Your task to perform on an android device: Add macbook pro to the cart on target.com, then select checkout. Image 0: 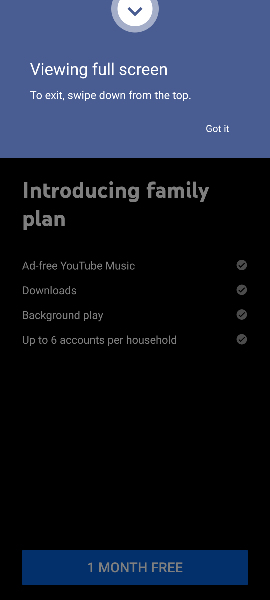
Step 0: press home button
Your task to perform on an android device: Add macbook pro to the cart on target.com, then select checkout. Image 1: 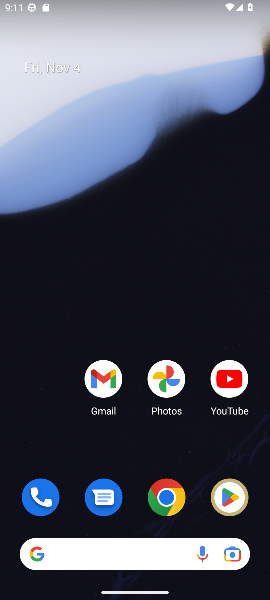
Step 1: click (166, 495)
Your task to perform on an android device: Add macbook pro to the cart on target.com, then select checkout. Image 2: 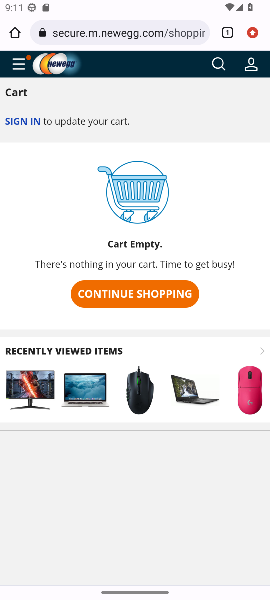
Step 2: click (115, 41)
Your task to perform on an android device: Add macbook pro to the cart on target.com, then select checkout. Image 3: 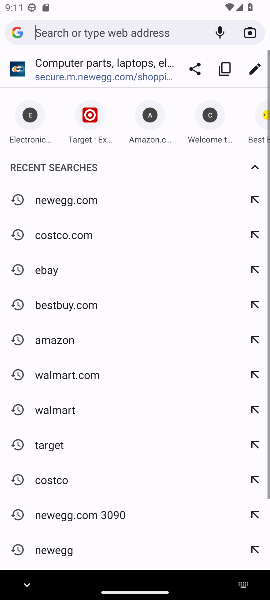
Step 3: click (90, 128)
Your task to perform on an android device: Add macbook pro to the cart on target.com, then select checkout. Image 4: 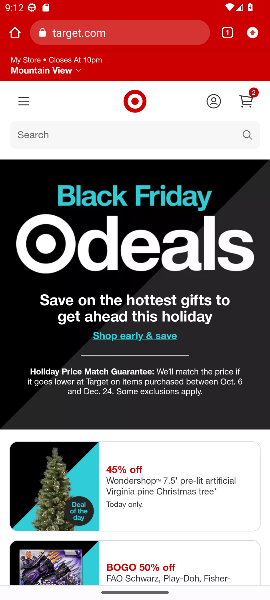
Step 4: click (245, 135)
Your task to perform on an android device: Add macbook pro to the cart on target.com, then select checkout. Image 5: 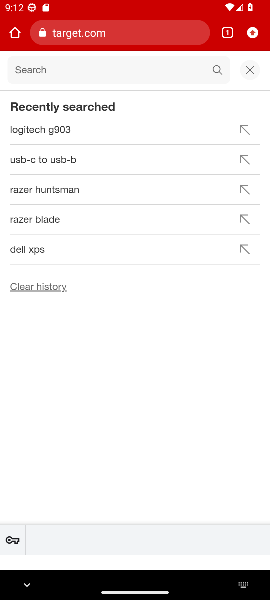
Step 5: type "macbook pro"
Your task to perform on an android device: Add macbook pro to the cart on target.com, then select checkout. Image 6: 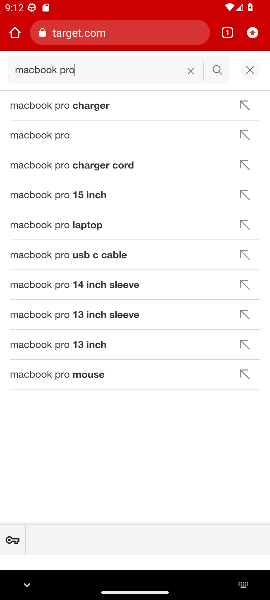
Step 6: click (37, 138)
Your task to perform on an android device: Add macbook pro to the cart on target.com, then select checkout. Image 7: 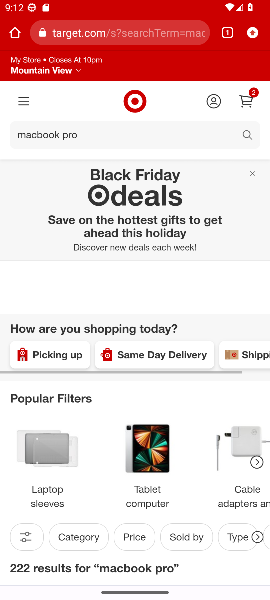
Step 7: task complete